Your task to perform on an android device: Open accessibility settings Image 0: 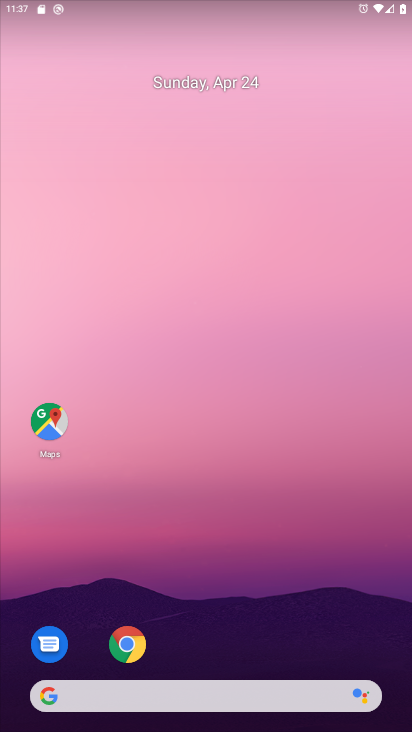
Step 0: drag from (205, 644) to (312, 8)
Your task to perform on an android device: Open accessibility settings Image 1: 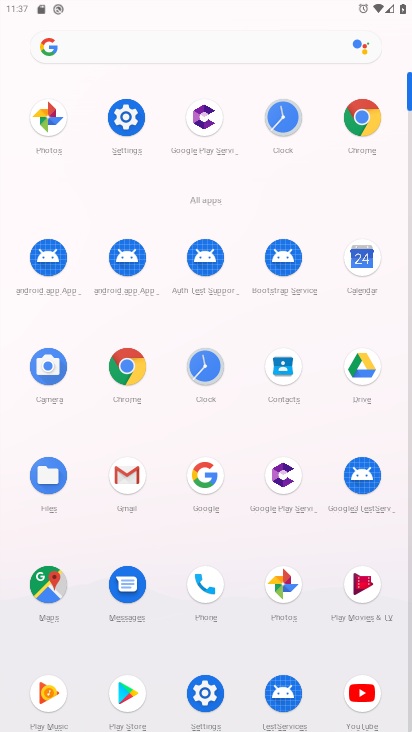
Step 1: click (133, 133)
Your task to perform on an android device: Open accessibility settings Image 2: 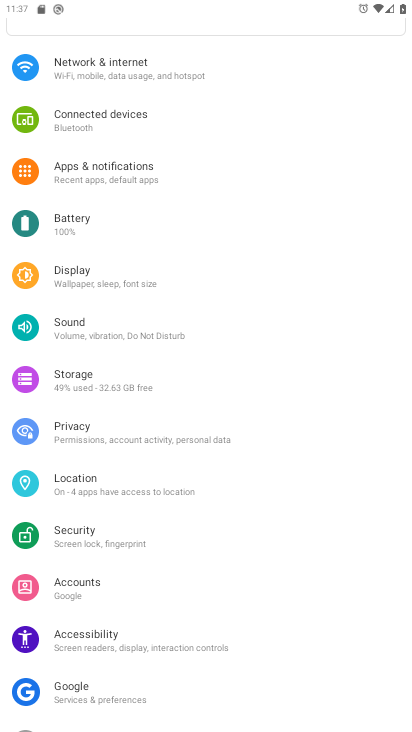
Step 2: click (114, 642)
Your task to perform on an android device: Open accessibility settings Image 3: 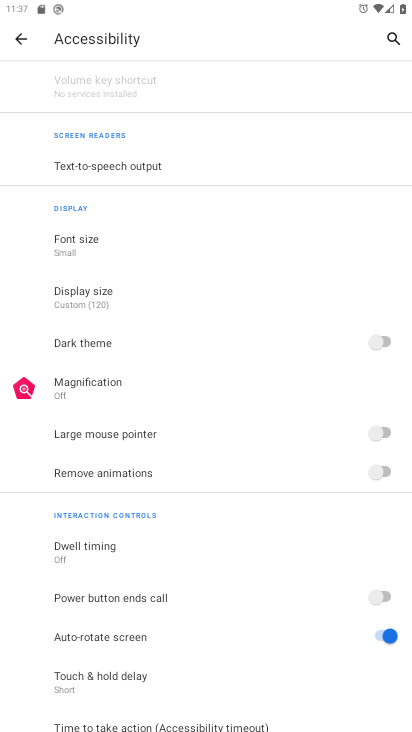
Step 3: task complete